Your task to perform on an android device: Clear the shopping cart on amazon. Add "bose soundlink" to the cart on amazon Image 0: 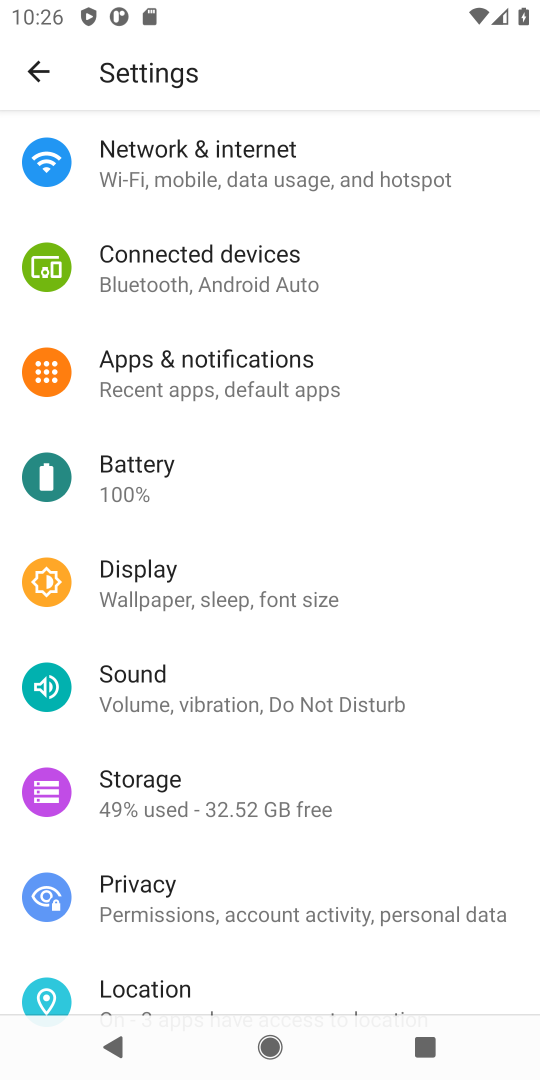
Step 0: press home button
Your task to perform on an android device: Clear the shopping cart on amazon. Add "bose soundlink" to the cart on amazon Image 1: 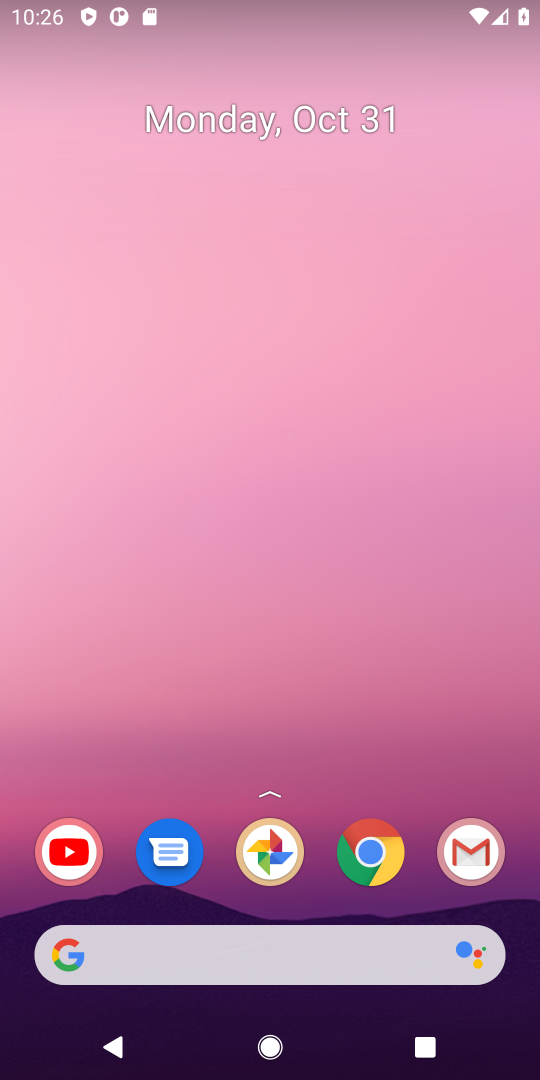
Step 1: drag from (262, 875) to (385, 69)
Your task to perform on an android device: Clear the shopping cart on amazon. Add "bose soundlink" to the cart on amazon Image 2: 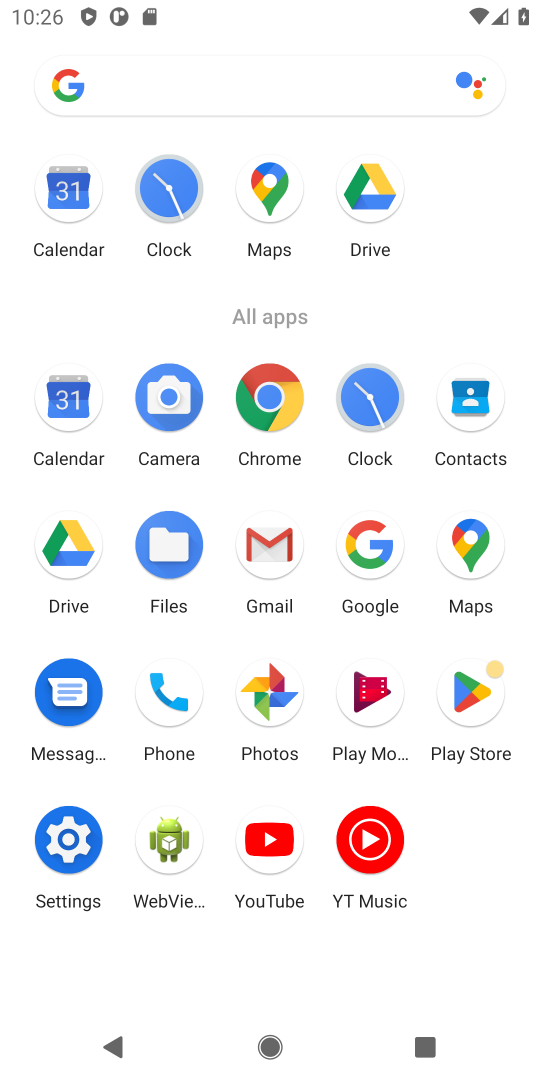
Step 2: click (290, 409)
Your task to perform on an android device: Clear the shopping cart on amazon. Add "bose soundlink" to the cart on amazon Image 3: 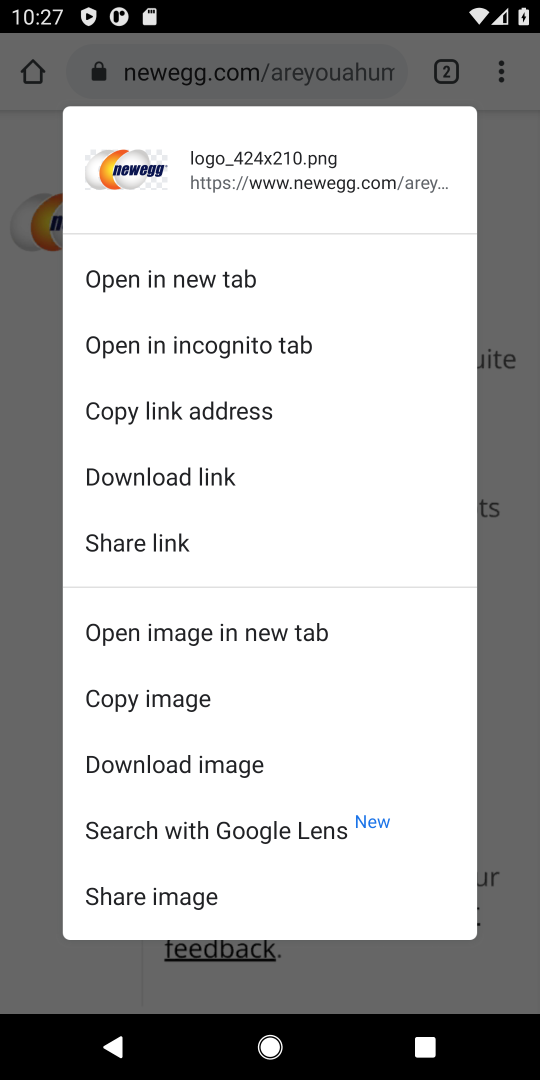
Step 3: click (279, 83)
Your task to perform on an android device: Clear the shopping cart on amazon. Add "bose soundlink" to the cart on amazon Image 4: 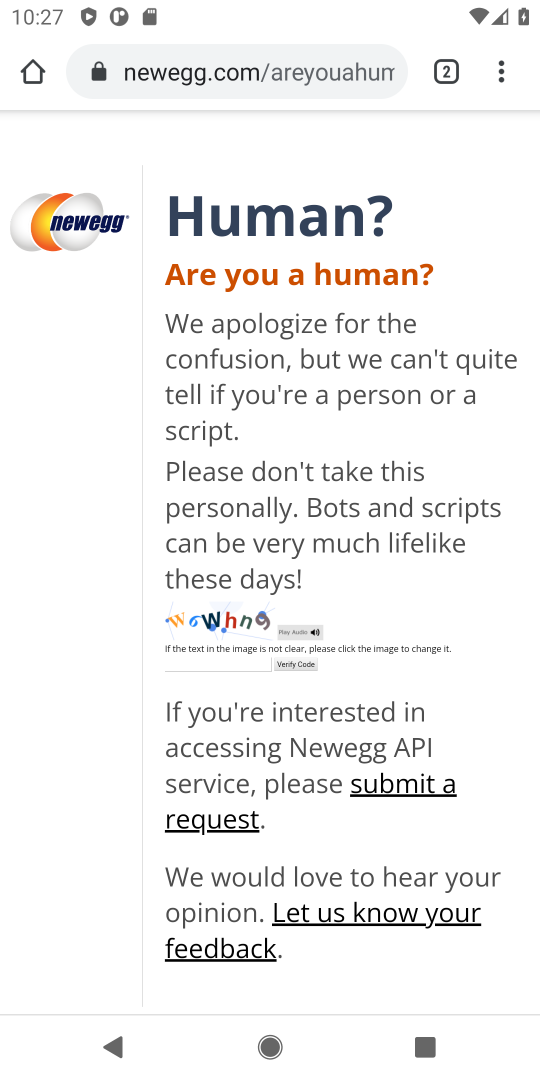
Step 4: click (280, 81)
Your task to perform on an android device: Clear the shopping cart on amazon. Add "bose soundlink" to the cart on amazon Image 5: 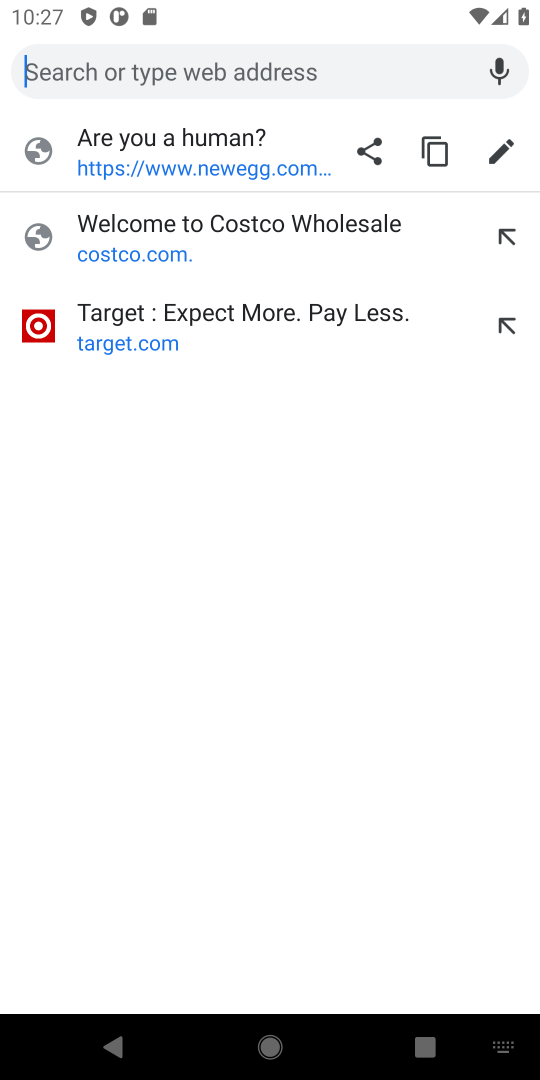
Step 5: type "amazon"
Your task to perform on an android device: Clear the shopping cart on amazon. Add "bose soundlink" to the cart on amazon Image 6: 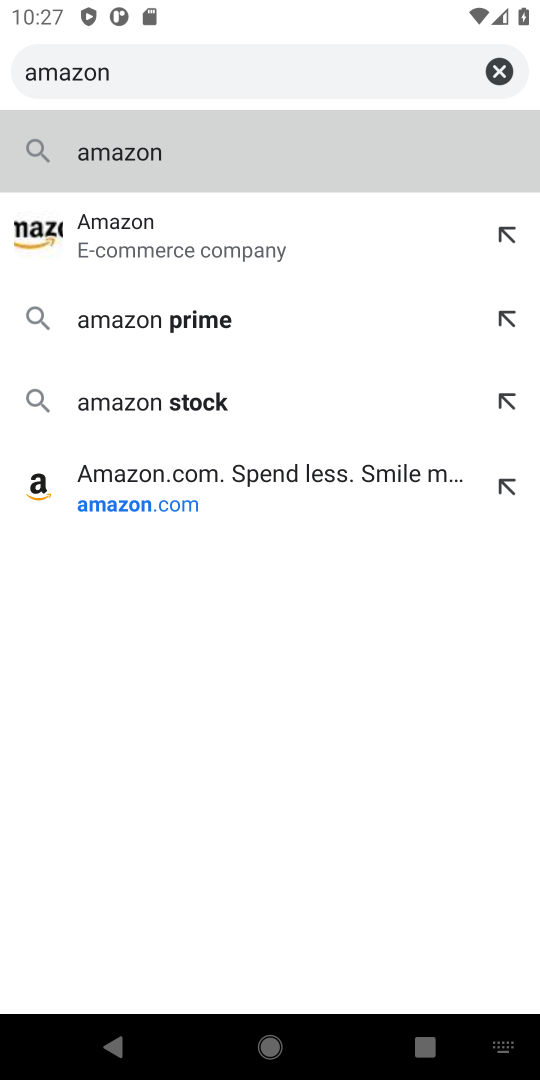
Step 6: press enter
Your task to perform on an android device: Clear the shopping cart on amazon. Add "bose soundlink" to the cart on amazon Image 7: 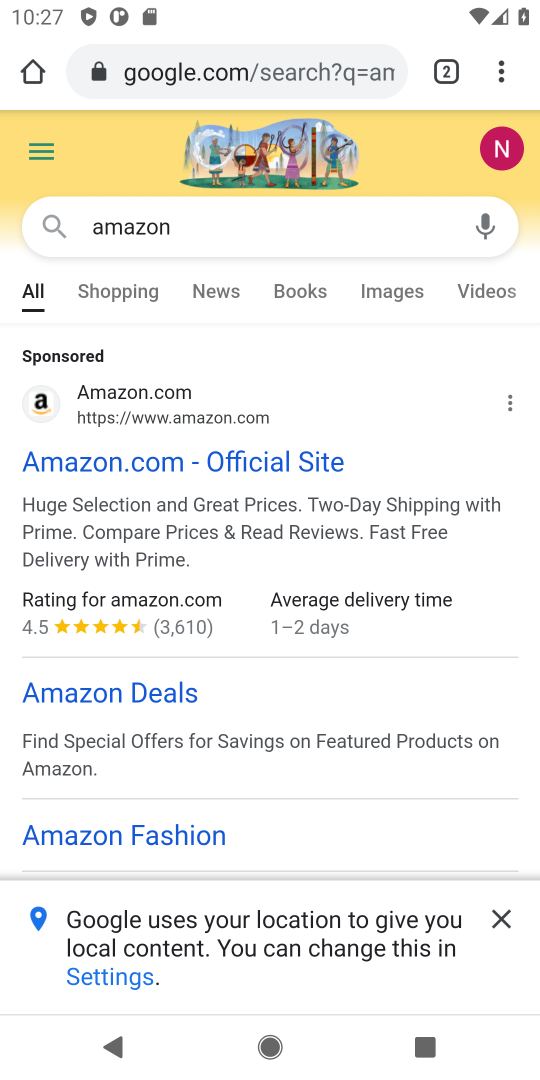
Step 7: click (66, 455)
Your task to perform on an android device: Clear the shopping cart on amazon. Add "bose soundlink" to the cart on amazon Image 8: 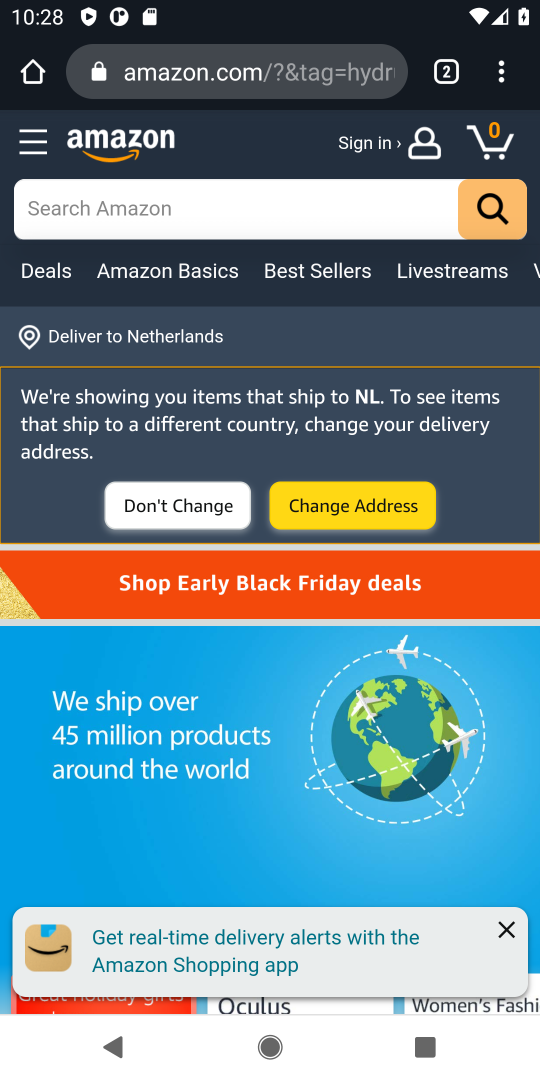
Step 8: click (226, 212)
Your task to perform on an android device: Clear the shopping cart on amazon. Add "bose soundlink" to the cart on amazon Image 9: 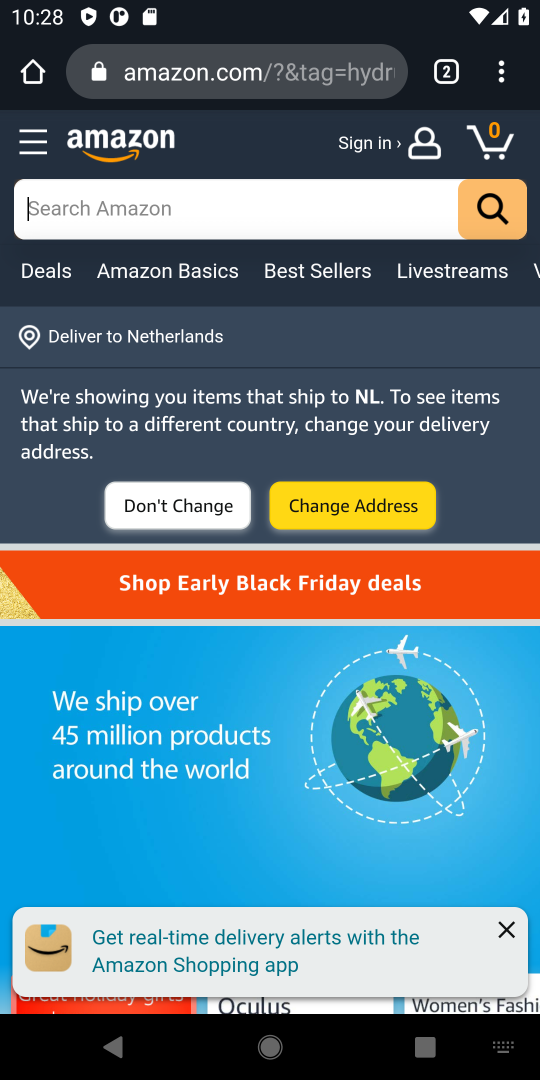
Step 9: type "bose soundlink"
Your task to perform on an android device: Clear the shopping cart on amazon. Add "bose soundlink" to the cart on amazon Image 10: 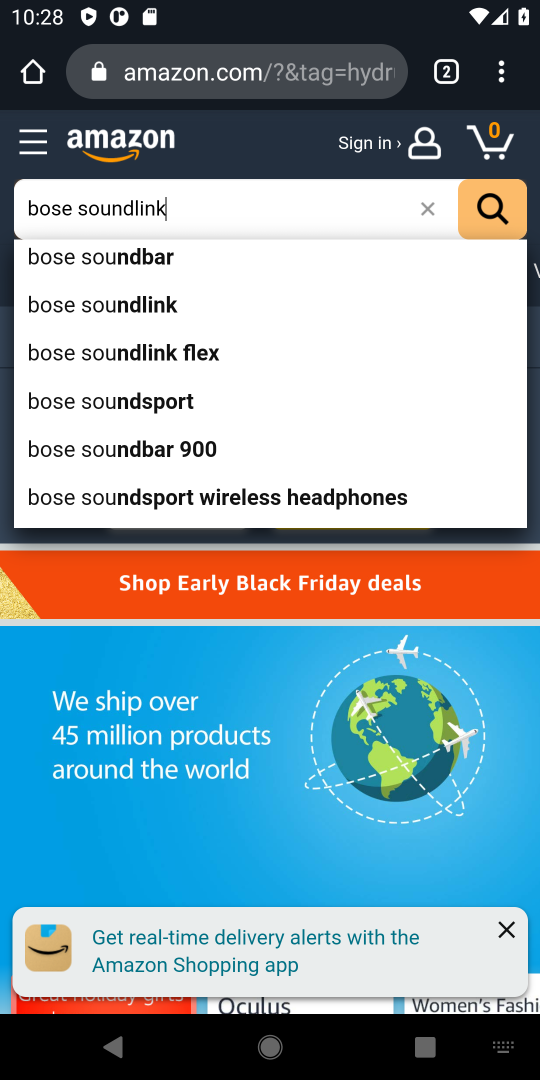
Step 10: press enter
Your task to perform on an android device: Clear the shopping cart on amazon. Add "bose soundlink" to the cart on amazon Image 11: 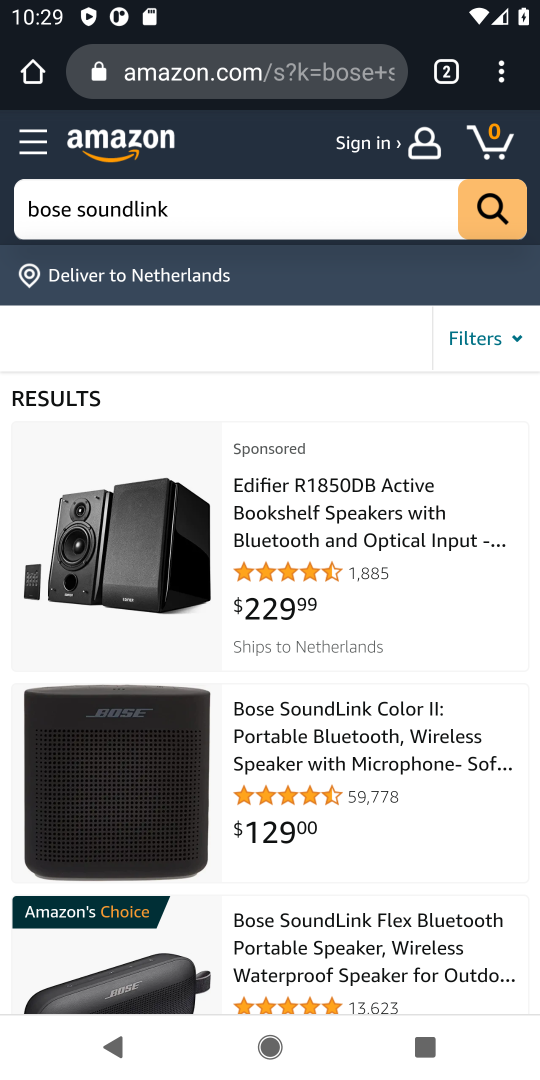
Step 11: click (78, 563)
Your task to perform on an android device: Clear the shopping cart on amazon. Add "bose soundlink" to the cart on amazon Image 12: 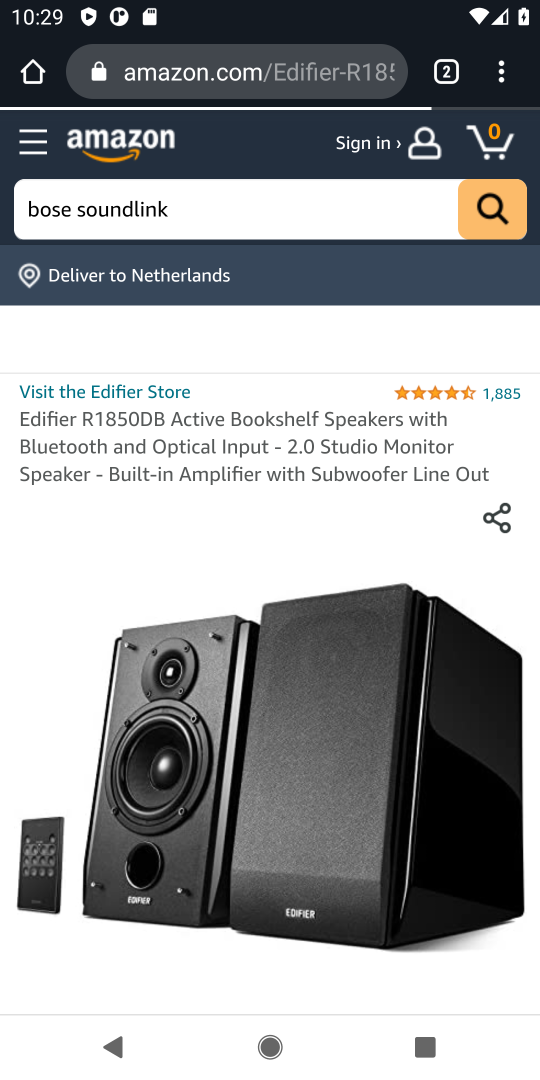
Step 12: drag from (138, 790) to (216, 373)
Your task to perform on an android device: Clear the shopping cart on amazon. Add "bose soundlink" to the cart on amazon Image 13: 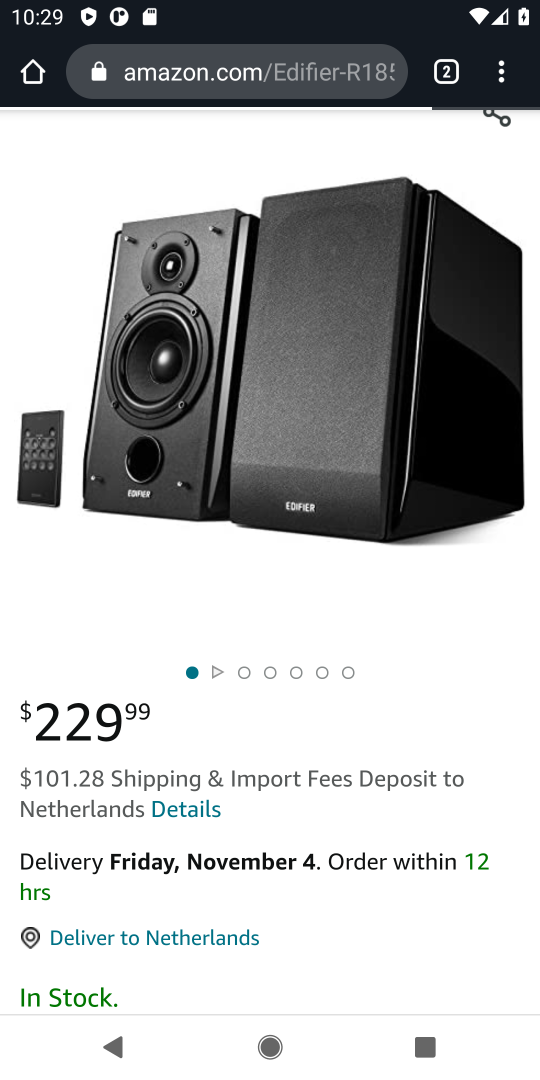
Step 13: drag from (335, 790) to (401, 367)
Your task to perform on an android device: Clear the shopping cart on amazon. Add "bose soundlink" to the cart on amazon Image 14: 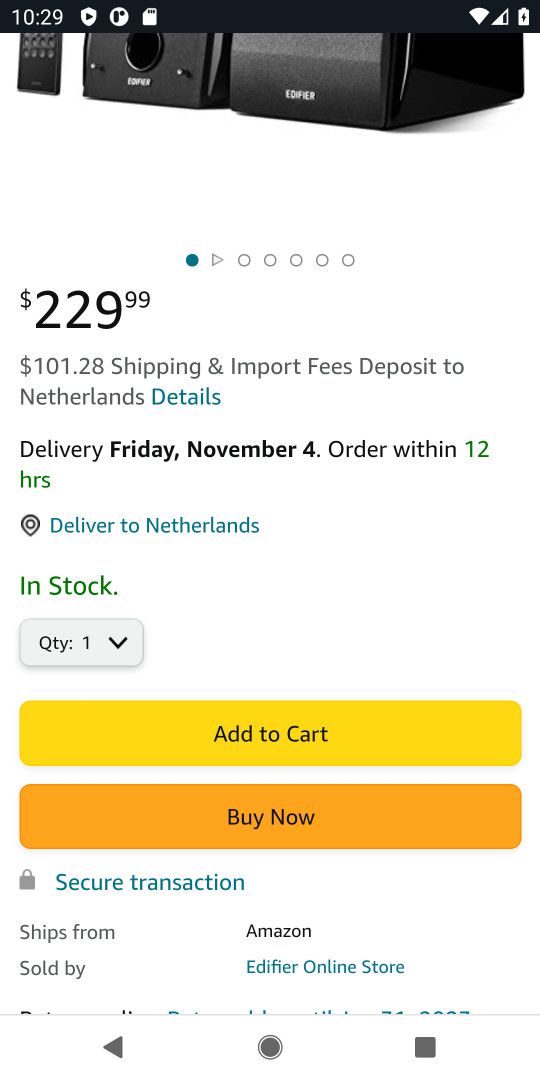
Step 14: click (288, 720)
Your task to perform on an android device: Clear the shopping cart on amazon. Add "bose soundlink" to the cart on amazon Image 15: 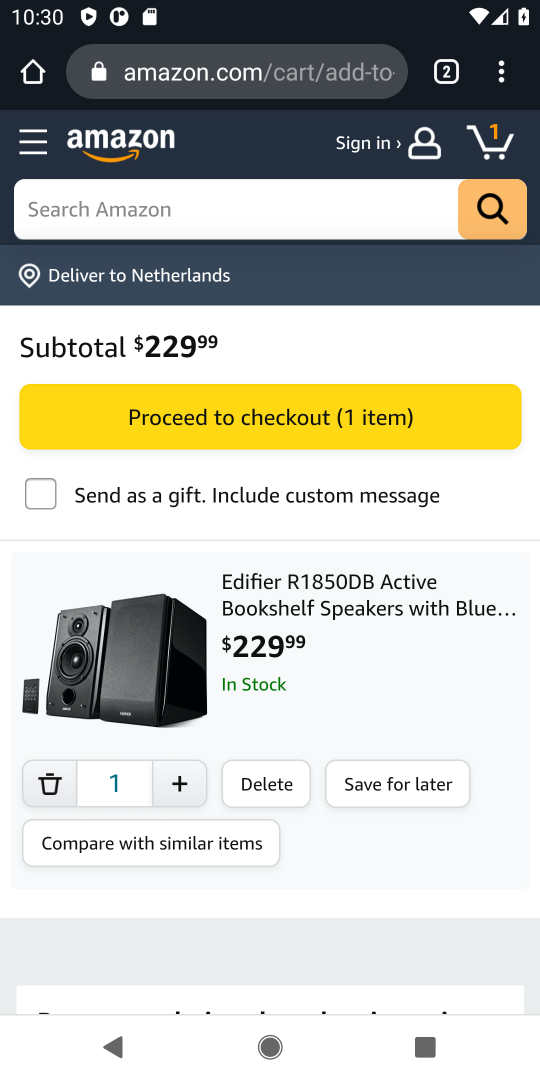
Step 15: task complete